Your task to perform on an android device: Go to privacy settings Image 0: 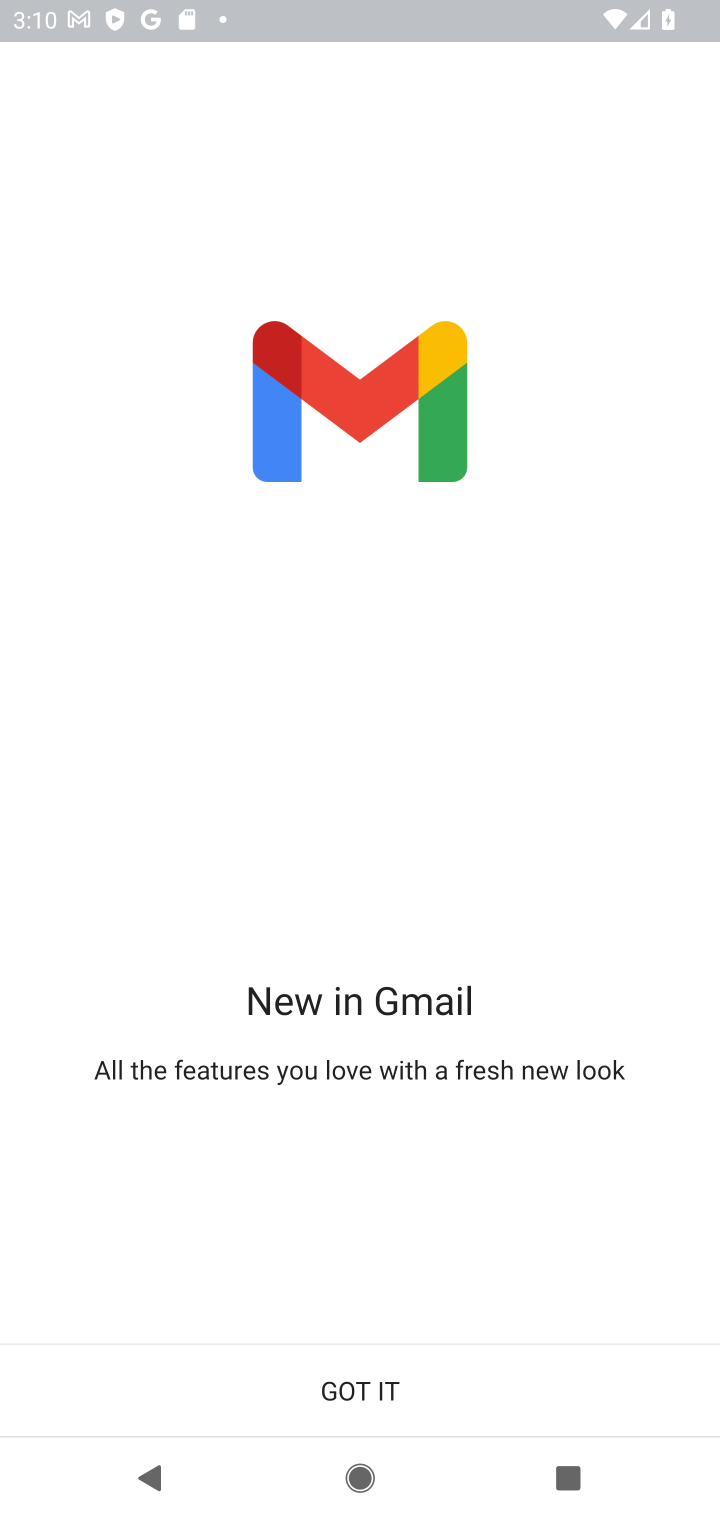
Step 0: press home button
Your task to perform on an android device: Go to privacy settings Image 1: 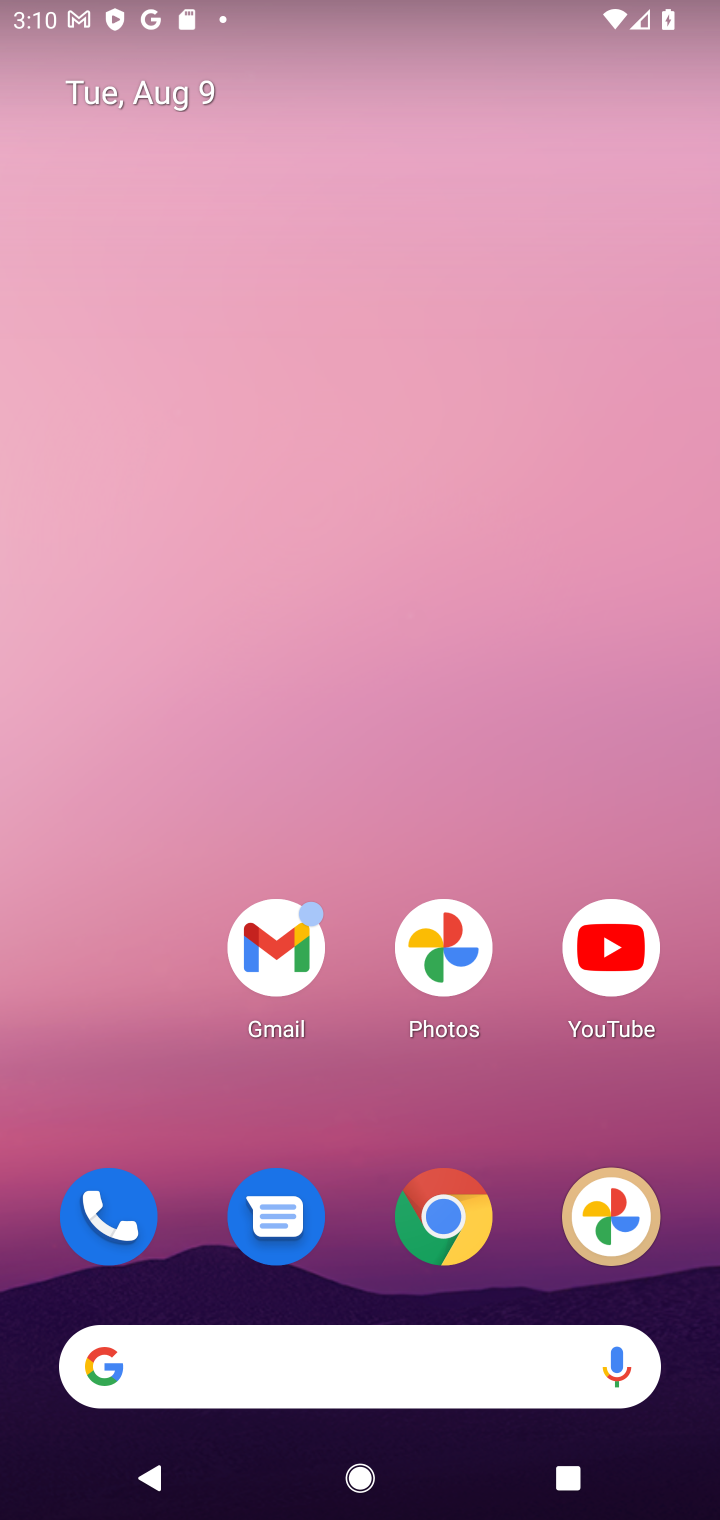
Step 1: drag from (343, 1114) to (274, 69)
Your task to perform on an android device: Go to privacy settings Image 2: 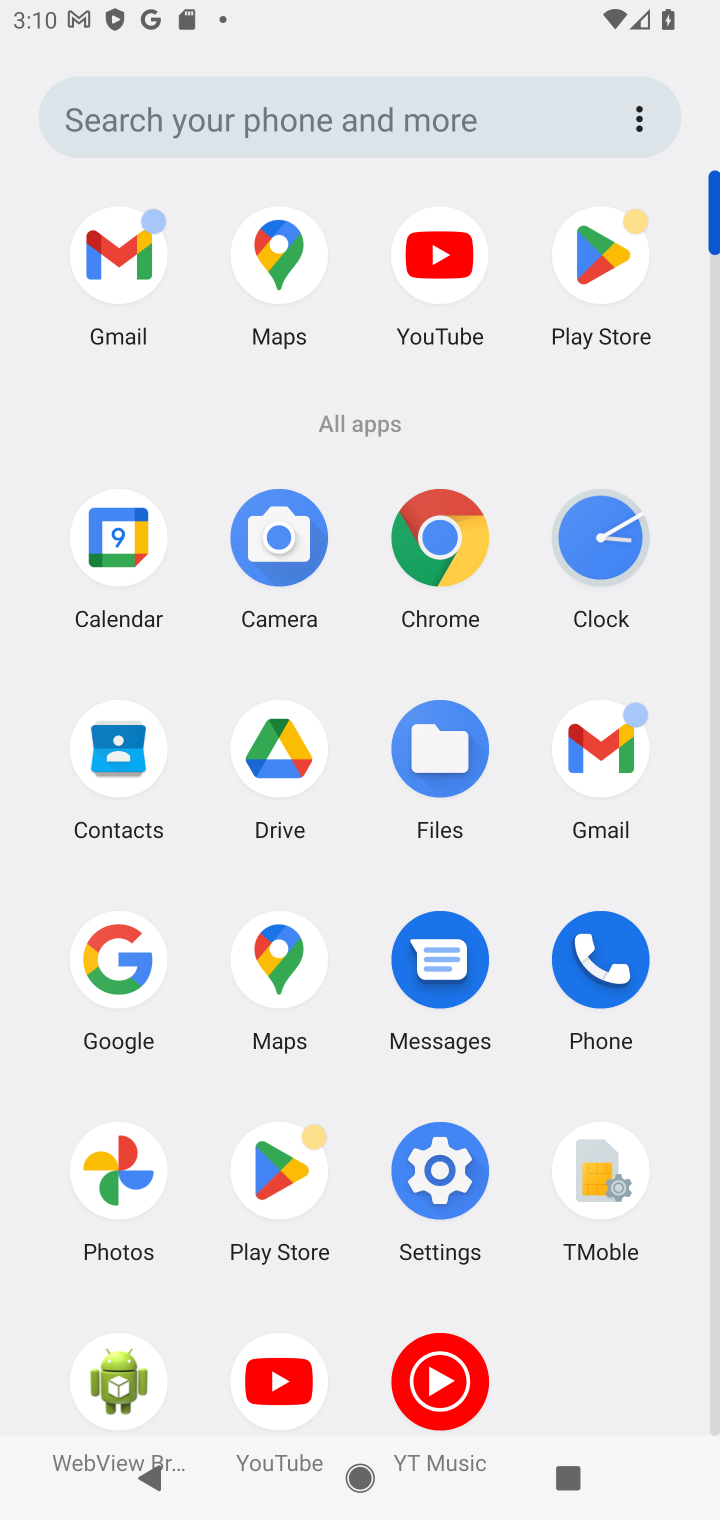
Step 2: click (449, 1202)
Your task to perform on an android device: Go to privacy settings Image 3: 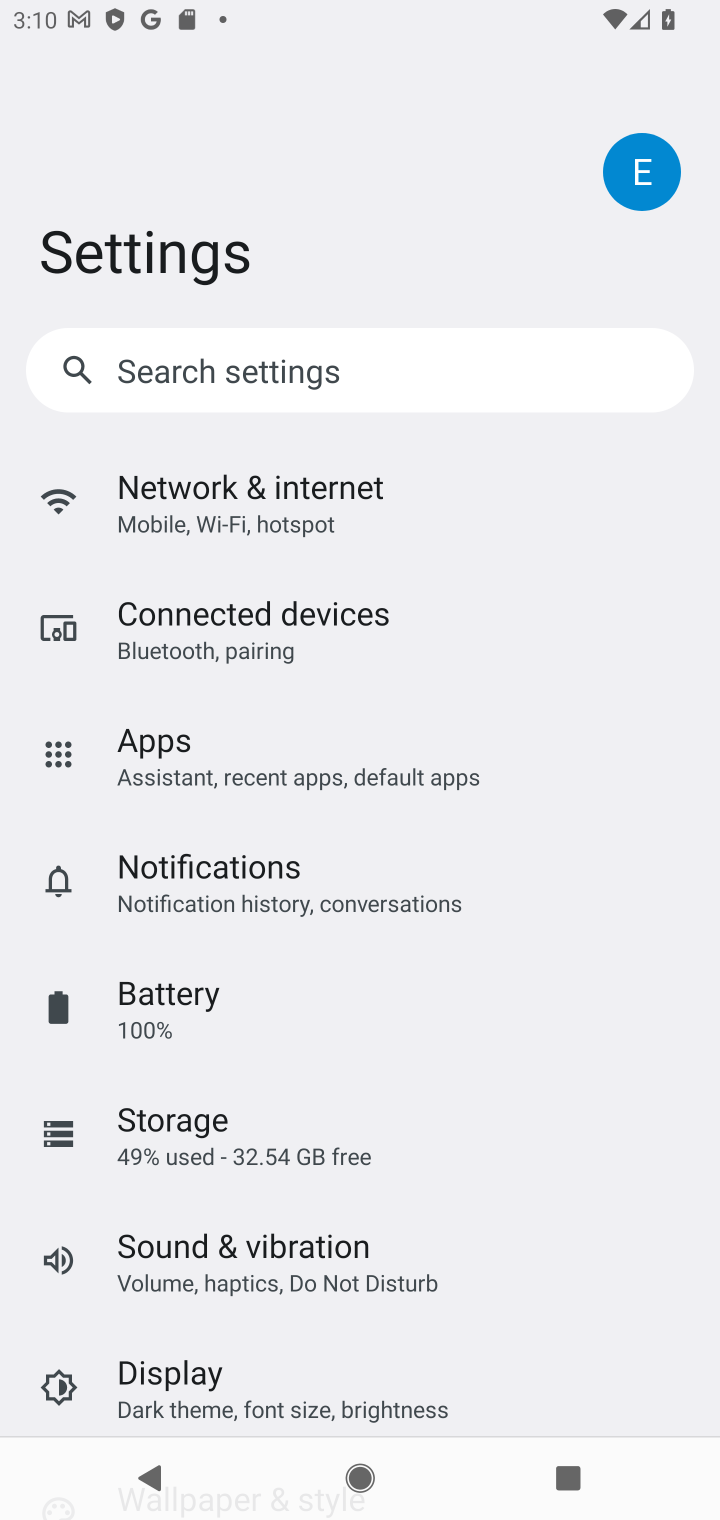
Step 3: drag from (299, 1297) to (299, 798)
Your task to perform on an android device: Go to privacy settings Image 4: 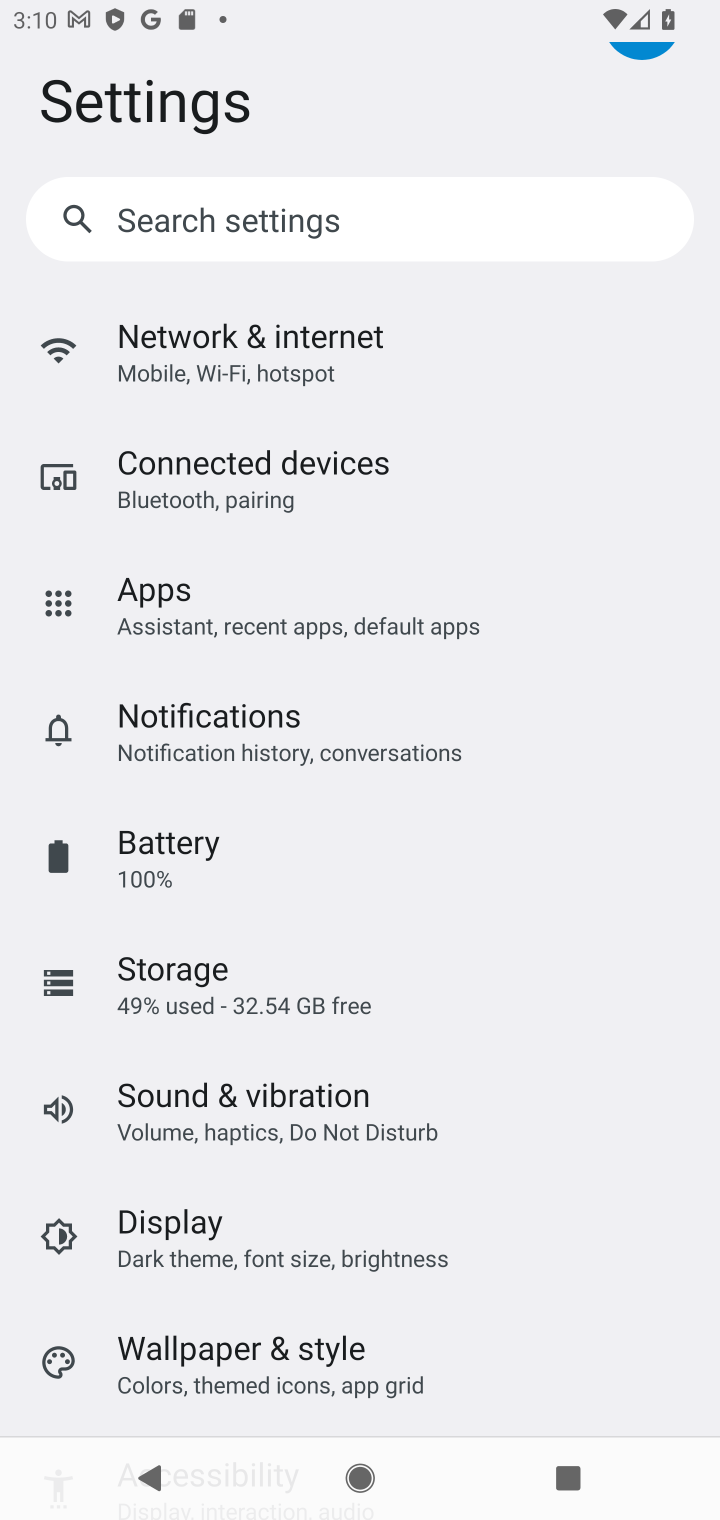
Step 4: drag from (244, 1257) to (305, 824)
Your task to perform on an android device: Go to privacy settings Image 5: 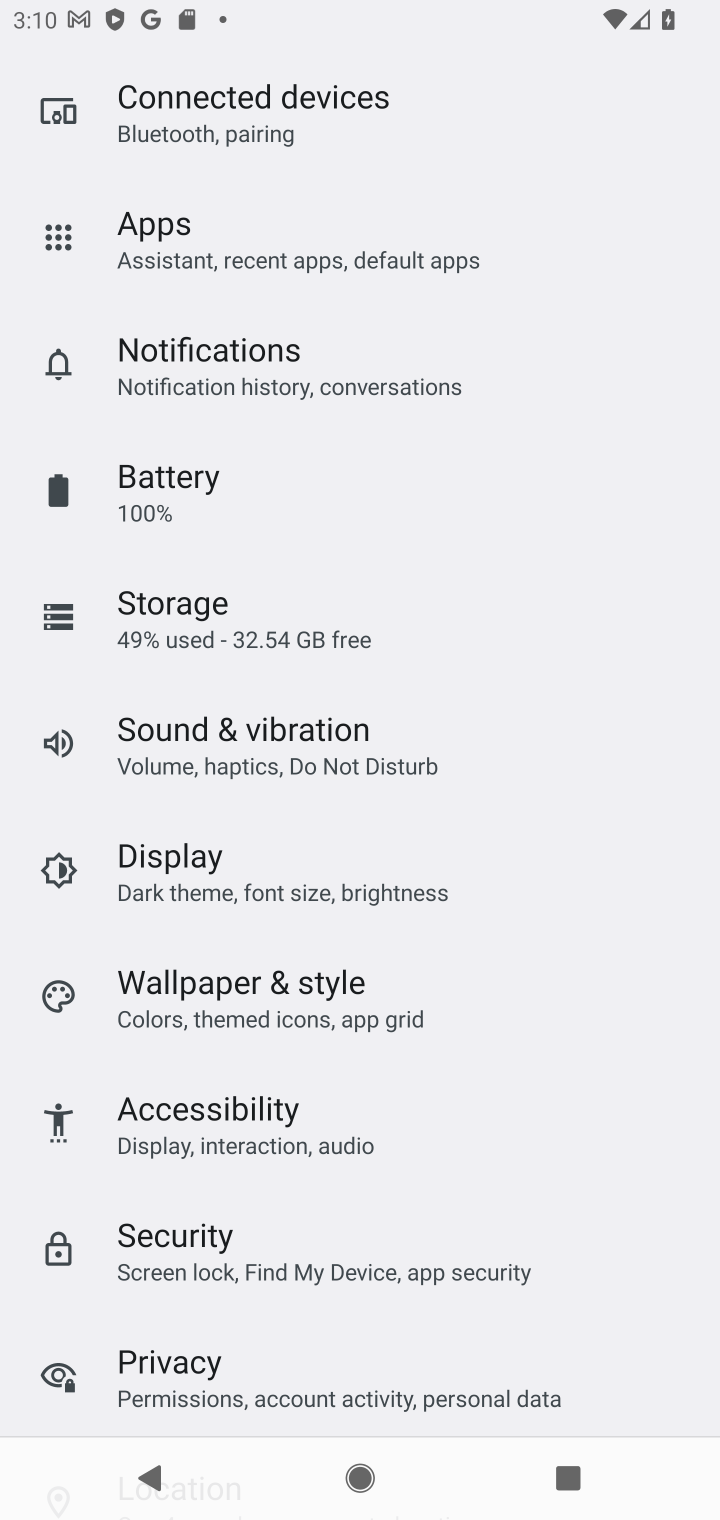
Step 5: click (257, 1400)
Your task to perform on an android device: Go to privacy settings Image 6: 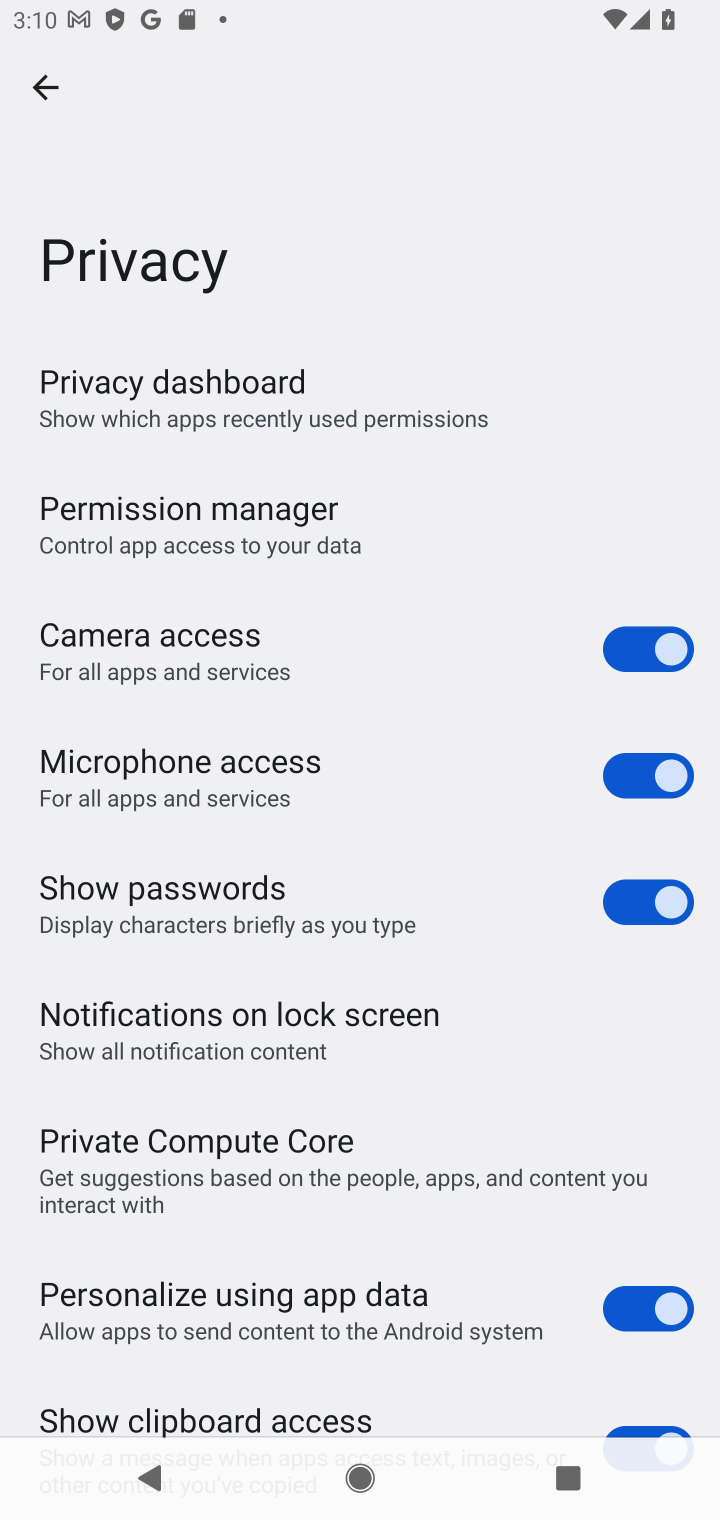
Step 6: task complete